Your task to perform on an android device: Open network settings Image 0: 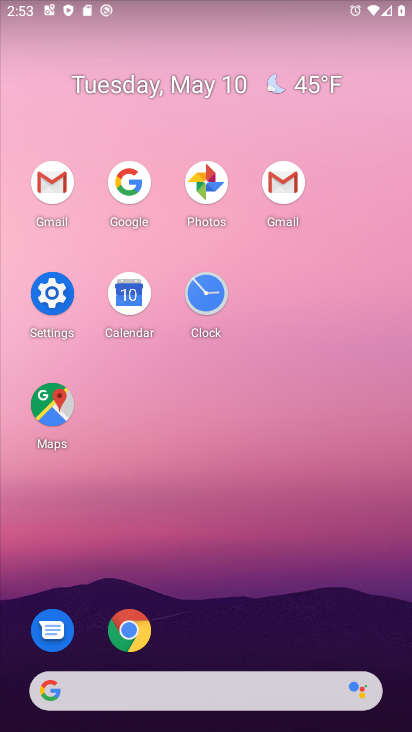
Step 0: click (68, 298)
Your task to perform on an android device: Open network settings Image 1: 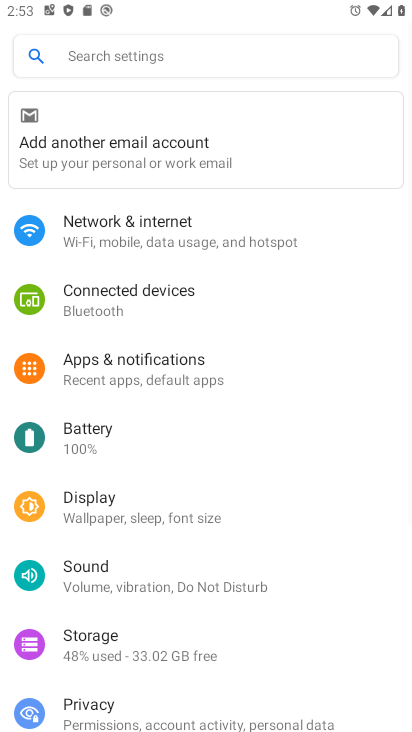
Step 1: click (182, 233)
Your task to perform on an android device: Open network settings Image 2: 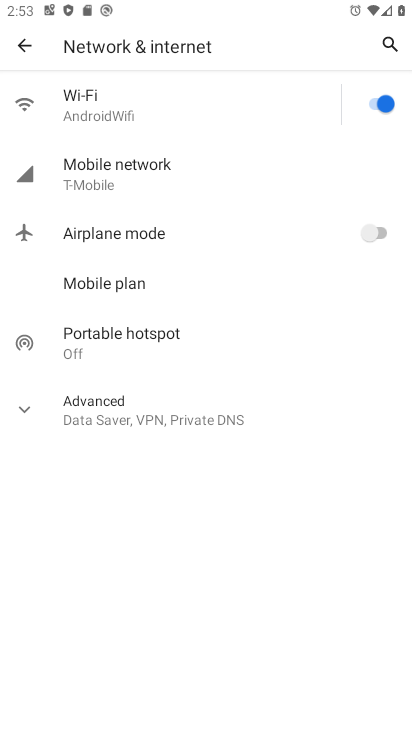
Step 2: click (134, 173)
Your task to perform on an android device: Open network settings Image 3: 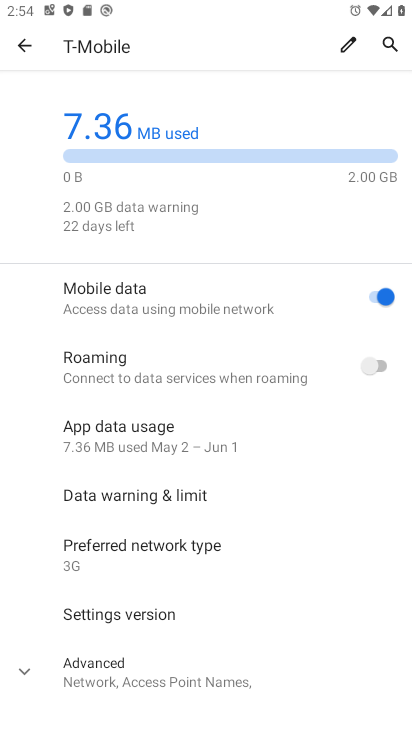
Step 3: task complete